Your task to perform on an android device: Do I have any events today? Image 0: 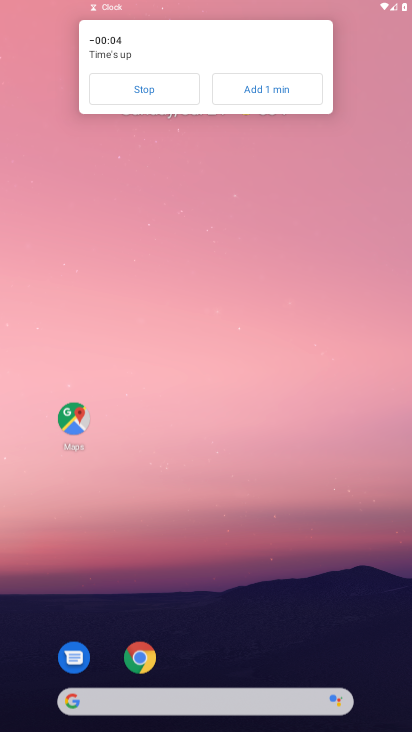
Step 0: click (172, 94)
Your task to perform on an android device: Do I have any events today? Image 1: 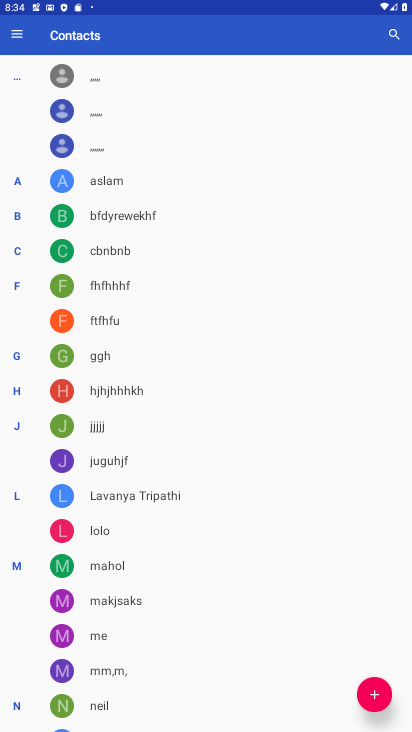
Step 1: press home button
Your task to perform on an android device: Do I have any events today? Image 2: 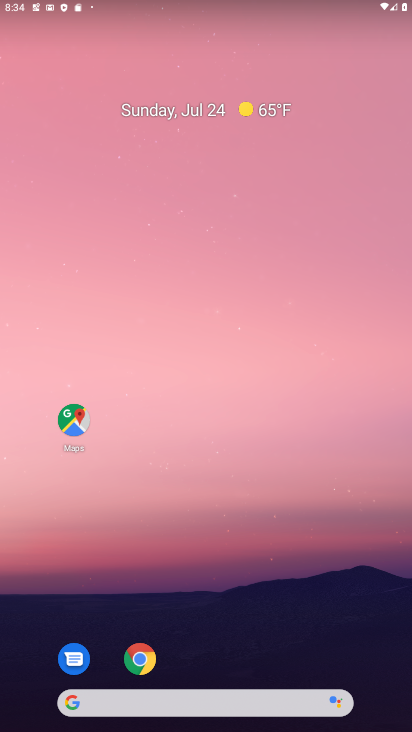
Step 2: drag from (291, 196) to (279, 0)
Your task to perform on an android device: Do I have any events today? Image 3: 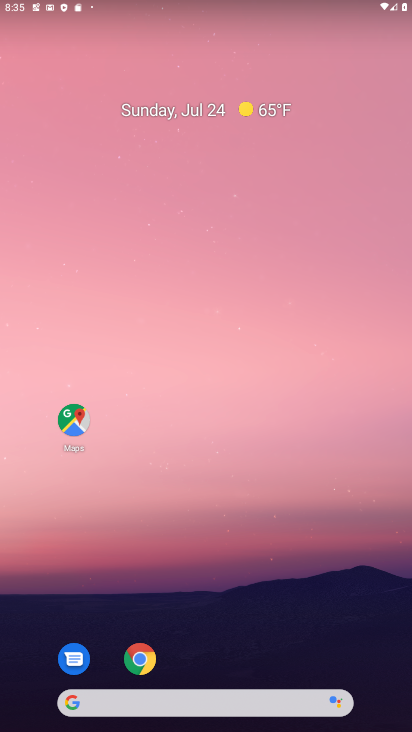
Step 3: drag from (314, 658) to (276, 9)
Your task to perform on an android device: Do I have any events today? Image 4: 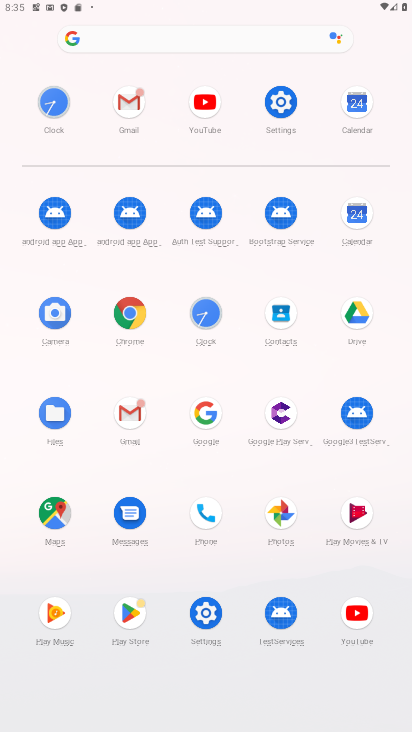
Step 4: click (355, 115)
Your task to perform on an android device: Do I have any events today? Image 5: 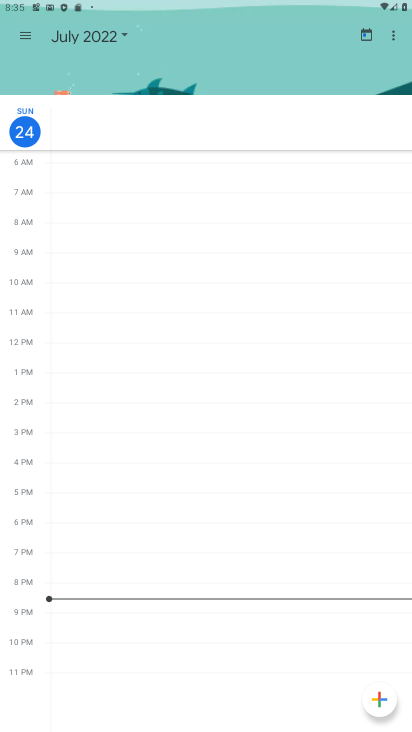
Step 5: click (19, 39)
Your task to perform on an android device: Do I have any events today? Image 6: 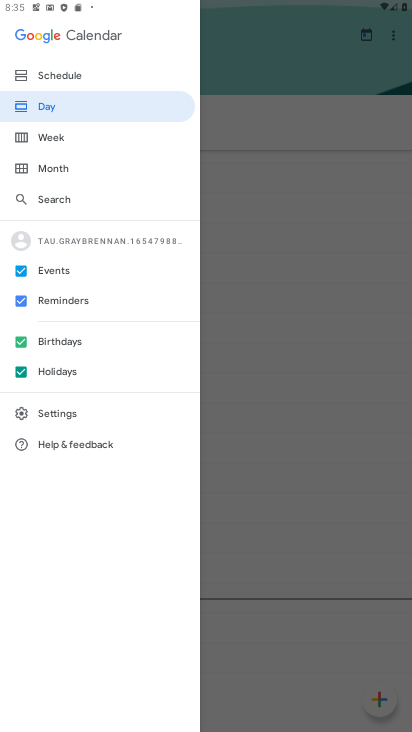
Step 6: click (18, 372)
Your task to perform on an android device: Do I have any events today? Image 7: 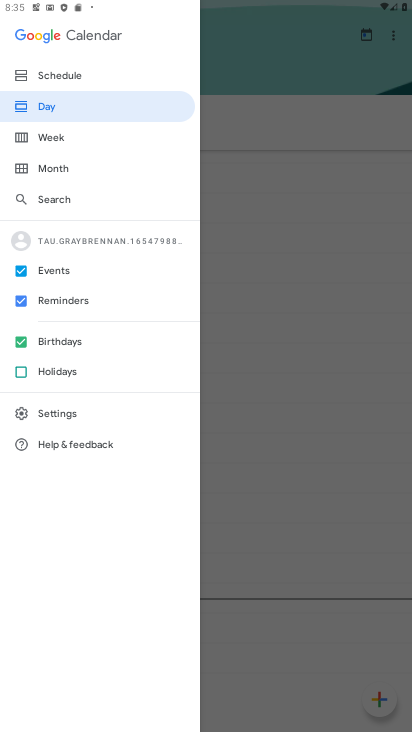
Step 7: click (22, 341)
Your task to perform on an android device: Do I have any events today? Image 8: 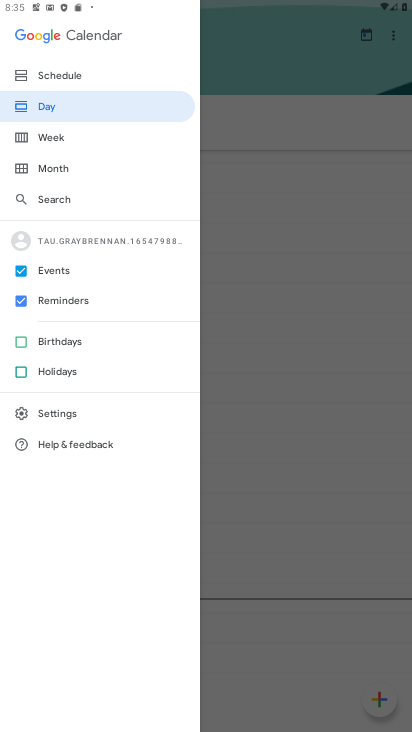
Step 8: click (22, 302)
Your task to perform on an android device: Do I have any events today? Image 9: 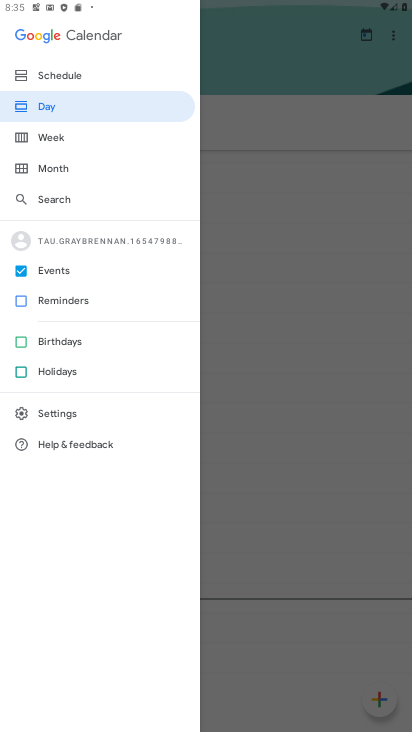
Step 9: click (47, 114)
Your task to perform on an android device: Do I have any events today? Image 10: 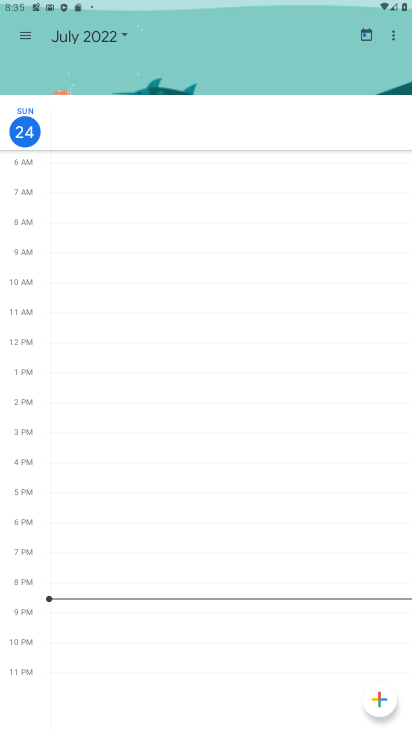
Step 10: task complete